Your task to perform on an android device: Open display settings Image 0: 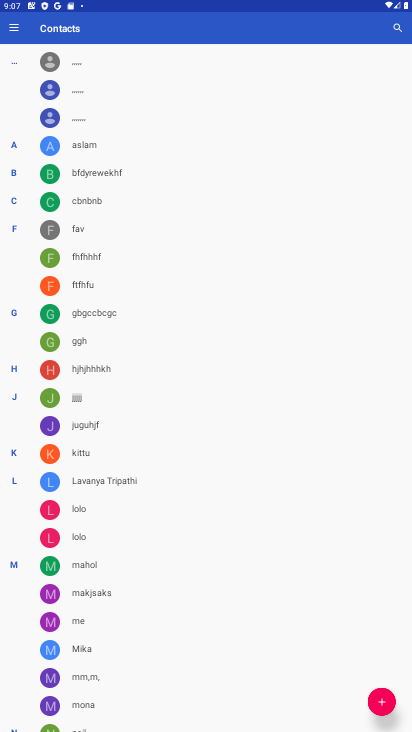
Step 0: task complete